Your task to perform on an android device: turn off location Image 0: 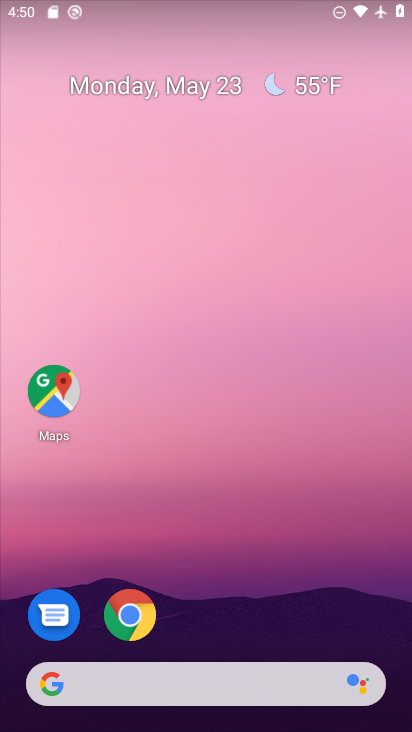
Step 0: drag from (379, 622) to (378, 139)
Your task to perform on an android device: turn off location Image 1: 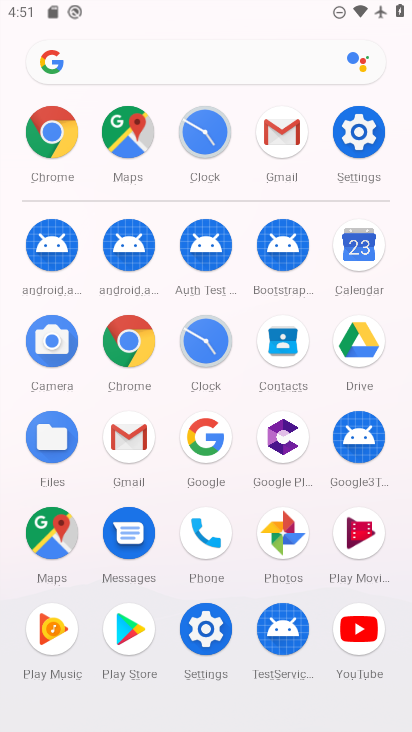
Step 1: click (198, 637)
Your task to perform on an android device: turn off location Image 2: 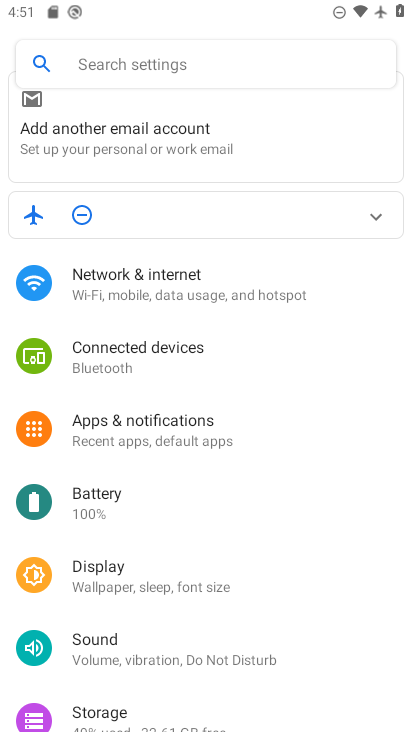
Step 2: drag from (330, 607) to (335, 519)
Your task to perform on an android device: turn off location Image 3: 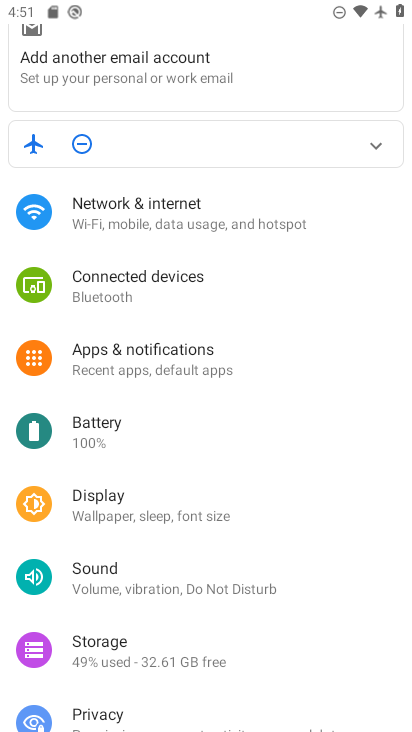
Step 3: drag from (336, 656) to (350, 522)
Your task to perform on an android device: turn off location Image 4: 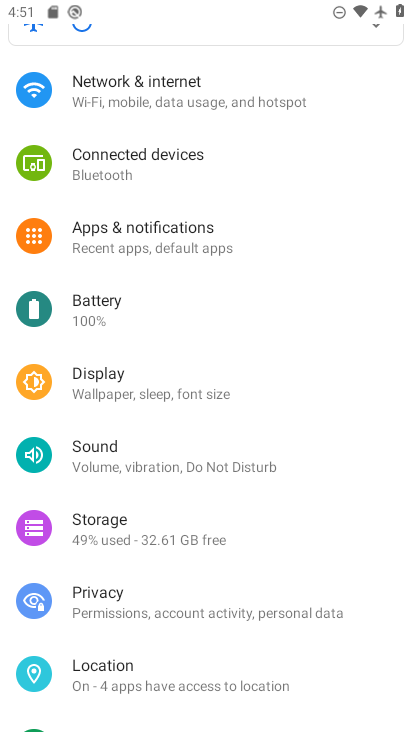
Step 4: drag from (353, 663) to (362, 535)
Your task to perform on an android device: turn off location Image 5: 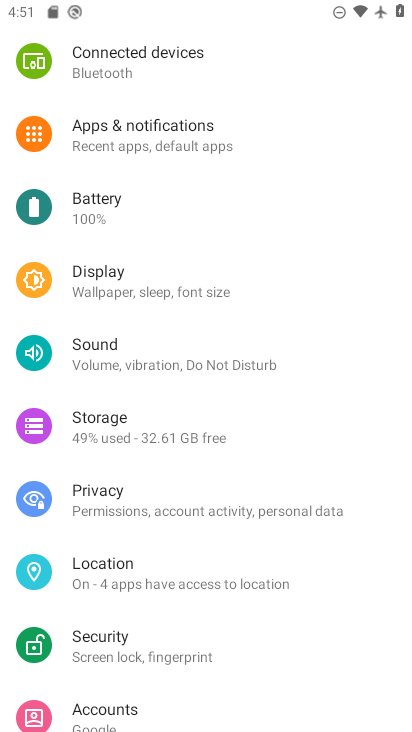
Step 5: drag from (363, 653) to (360, 511)
Your task to perform on an android device: turn off location Image 6: 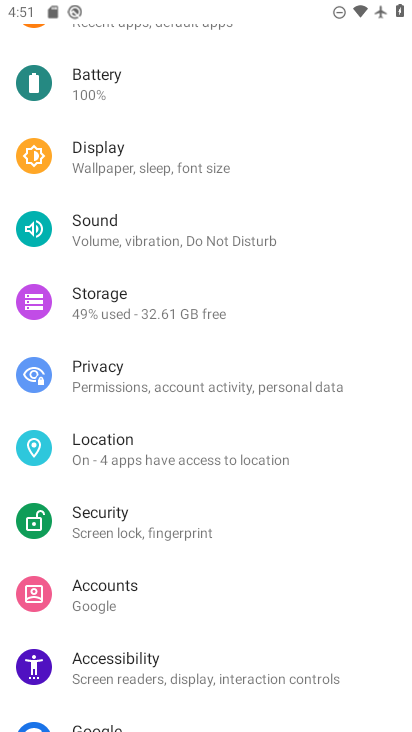
Step 6: drag from (356, 662) to (360, 514)
Your task to perform on an android device: turn off location Image 7: 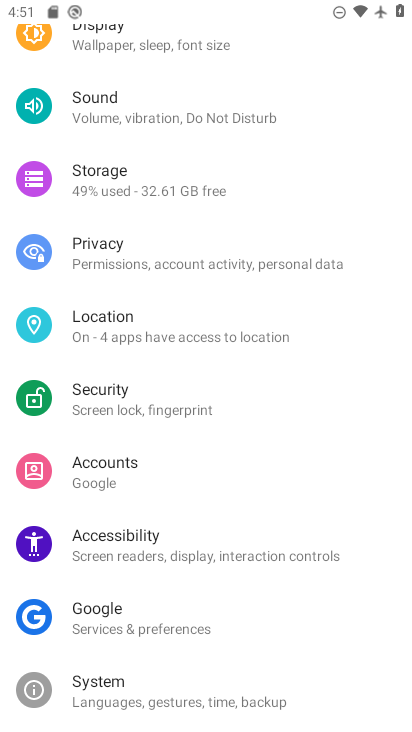
Step 7: drag from (359, 635) to (359, 488)
Your task to perform on an android device: turn off location Image 8: 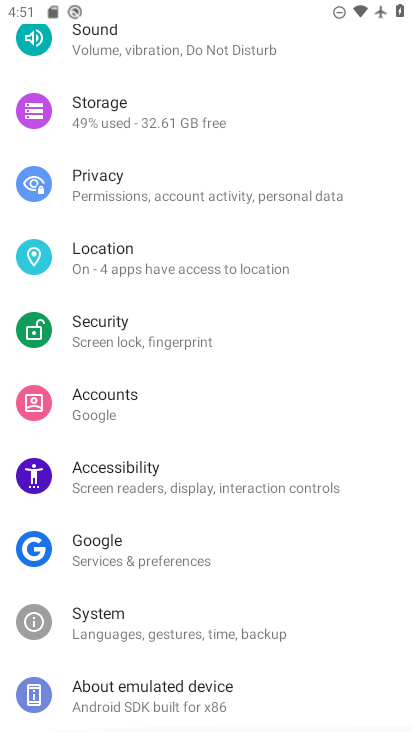
Step 8: drag from (362, 662) to (360, 512)
Your task to perform on an android device: turn off location Image 9: 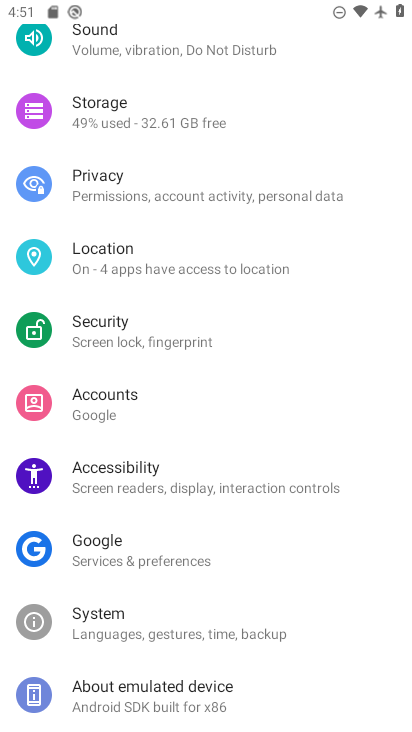
Step 9: drag from (377, 379) to (351, 518)
Your task to perform on an android device: turn off location Image 10: 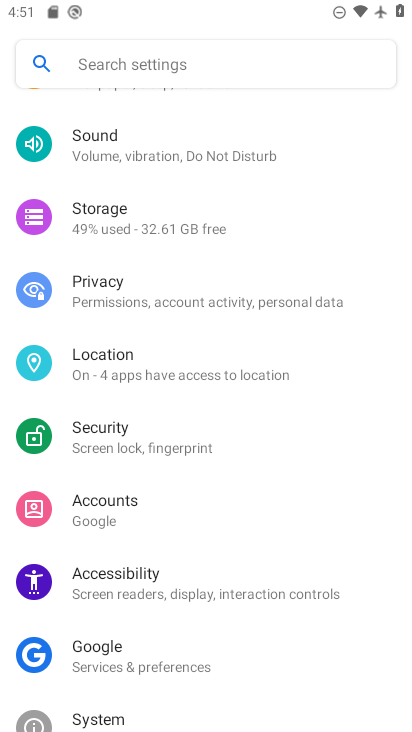
Step 10: drag from (341, 395) to (325, 547)
Your task to perform on an android device: turn off location Image 11: 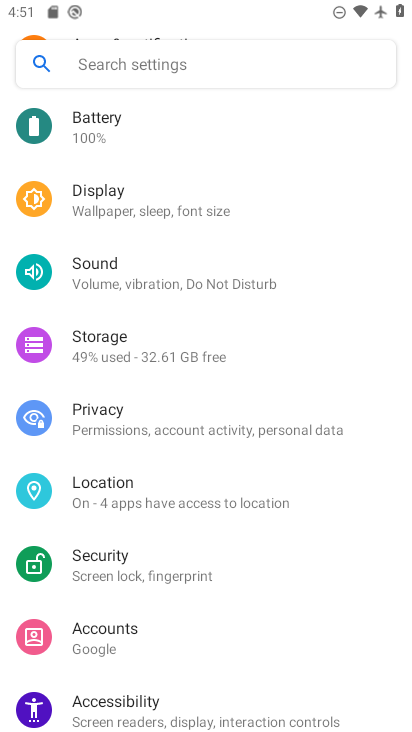
Step 11: click (273, 497)
Your task to perform on an android device: turn off location Image 12: 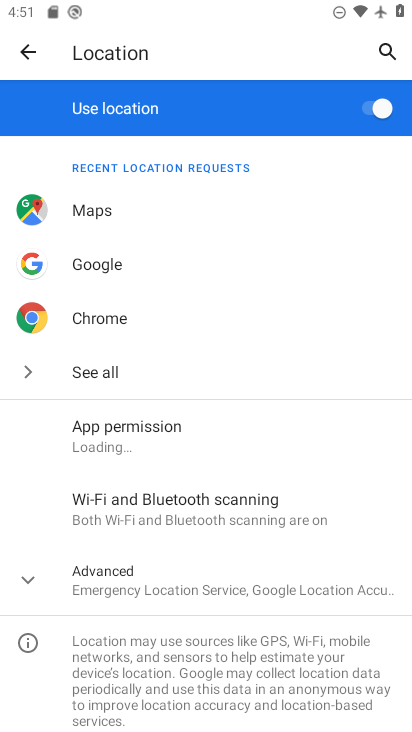
Step 12: click (370, 118)
Your task to perform on an android device: turn off location Image 13: 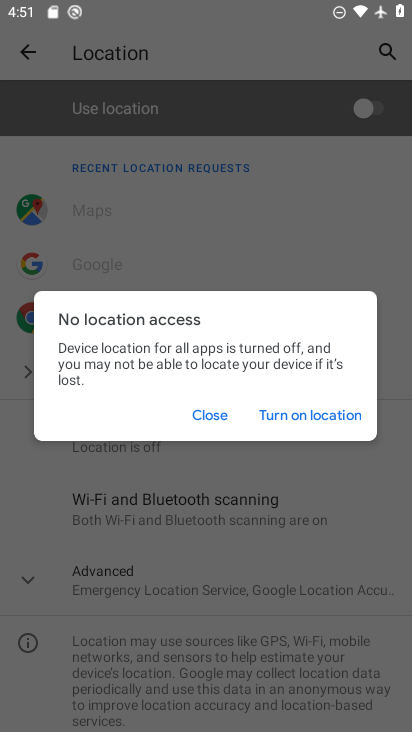
Step 13: task complete